Your task to perform on an android device: turn off improve location accuracy Image 0: 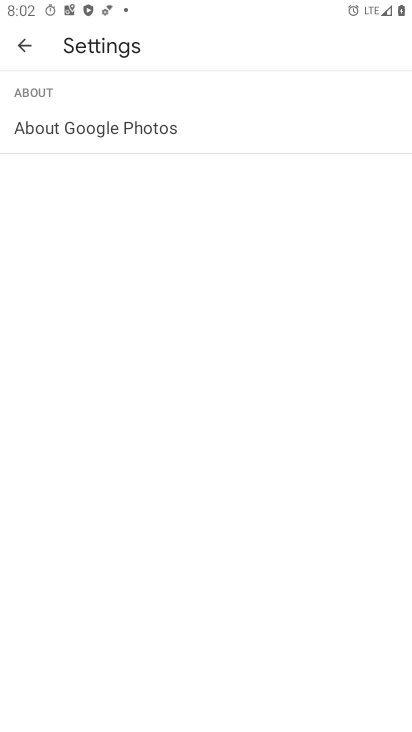
Step 0: press home button
Your task to perform on an android device: turn off improve location accuracy Image 1: 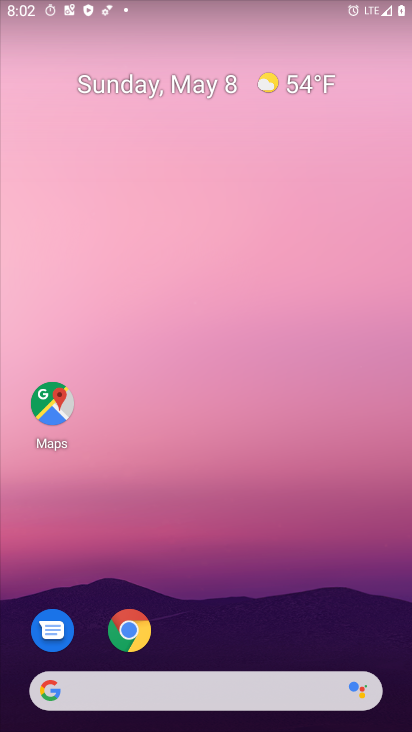
Step 1: drag from (222, 660) to (118, 55)
Your task to perform on an android device: turn off improve location accuracy Image 2: 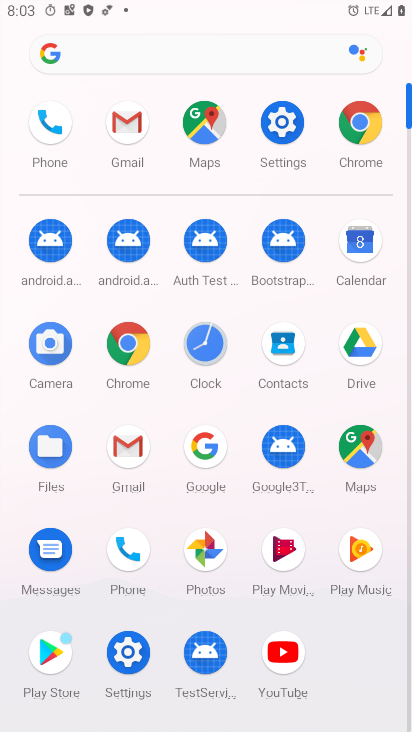
Step 2: click (293, 115)
Your task to perform on an android device: turn off improve location accuracy Image 3: 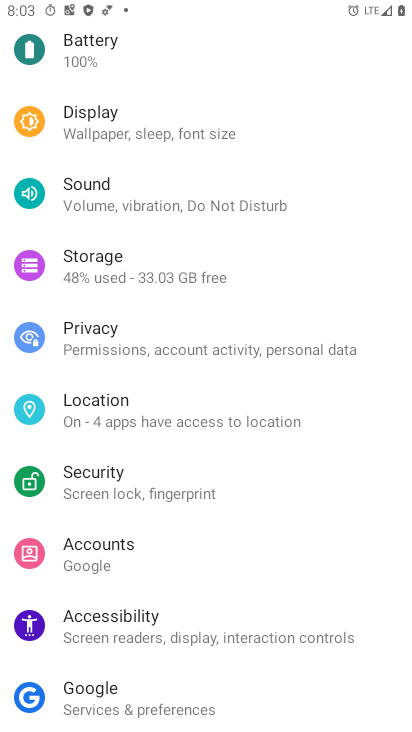
Step 3: click (92, 384)
Your task to perform on an android device: turn off improve location accuracy Image 4: 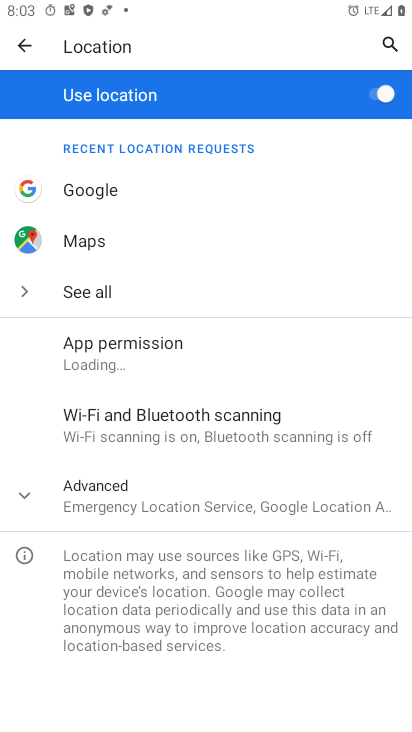
Step 4: click (115, 489)
Your task to perform on an android device: turn off improve location accuracy Image 5: 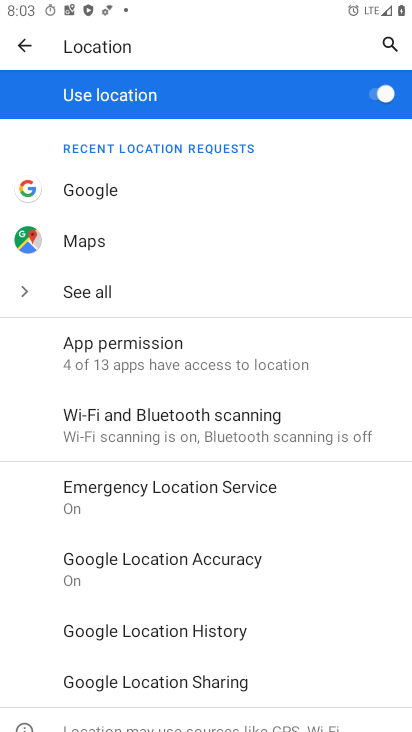
Step 5: click (182, 565)
Your task to perform on an android device: turn off improve location accuracy Image 6: 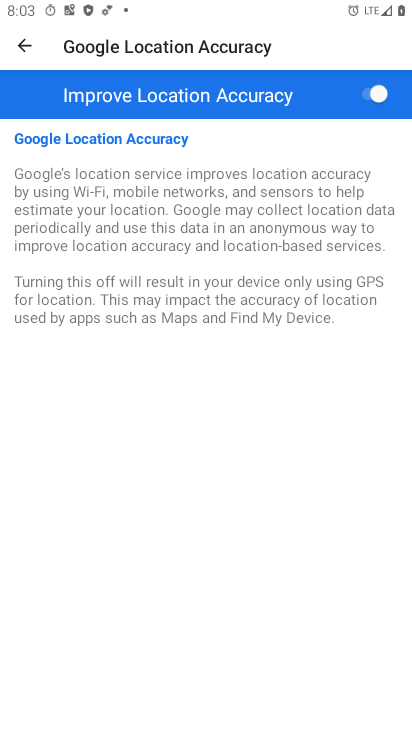
Step 6: click (367, 93)
Your task to perform on an android device: turn off improve location accuracy Image 7: 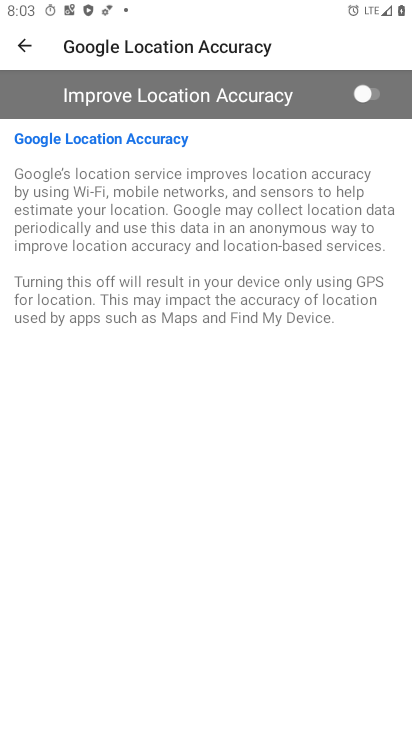
Step 7: task complete